Your task to perform on an android device: Go to wifi settings Image 0: 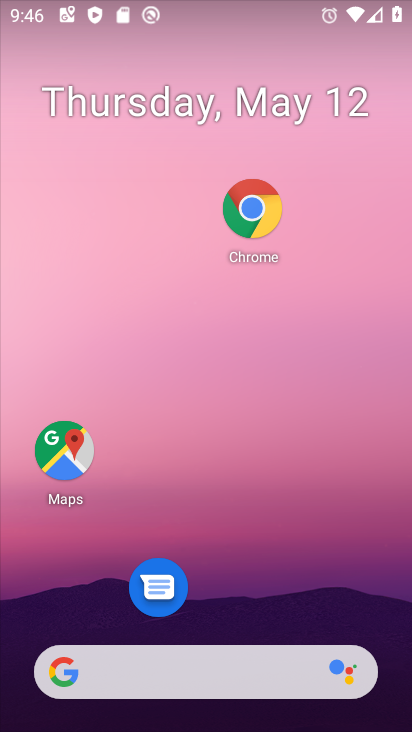
Step 0: drag from (292, 577) to (306, 233)
Your task to perform on an android device: Go to wifi settings Image 1: 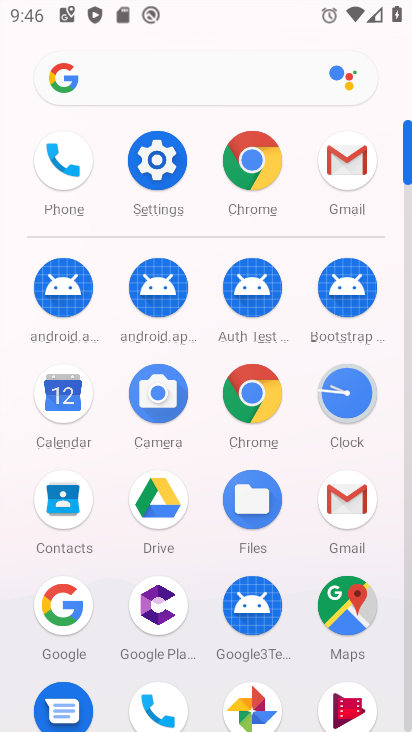
Step 1: click (158, 145)
Your task to perform on an android device: Go to wifi settings Image 2: 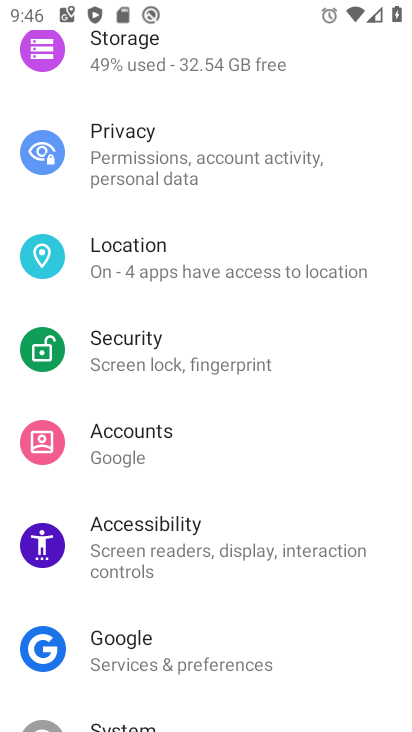
Step 2: drag from (236, 132) to (210, 638)
Your task to perform on an android device: Go to wifi settings Image 3: 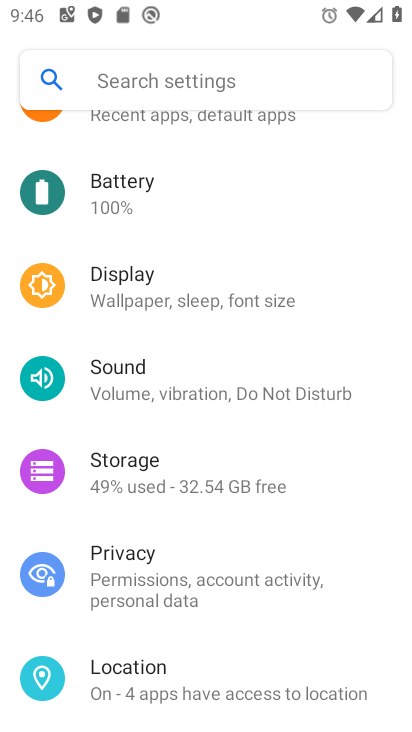
Step 3: drag from (212, 261) to (210, 652)
Your task to perform on an android device: Go to wifi settings Image 4: 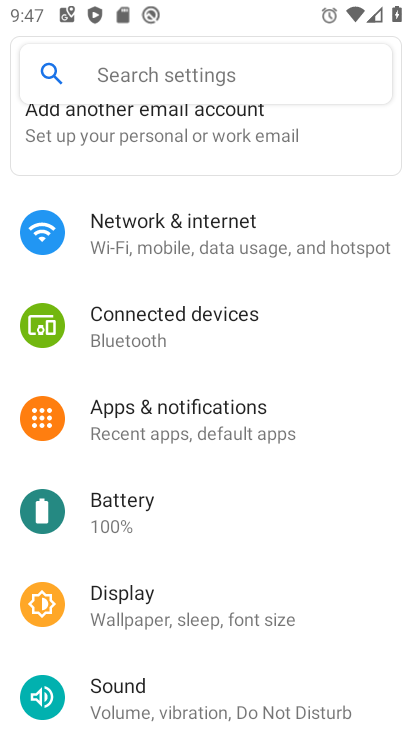
Step 4: click (166, 221)
Your task to perform on an android device: Go to wifi settings Image 5: 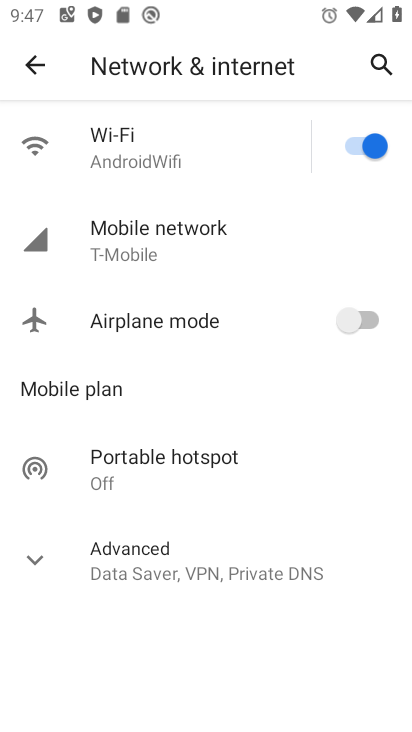
Step 5: click (165, 158)
Your task to perform on an android device: Go to wifi settings Image 6: 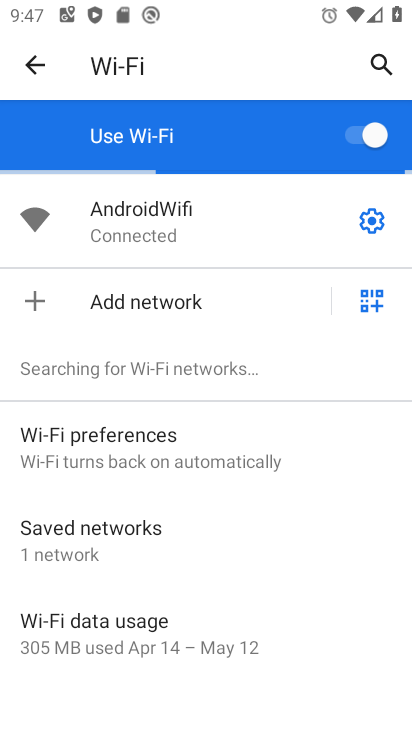
Step 6: task complete